Your task to perform on an android device: Check the news Image 0: 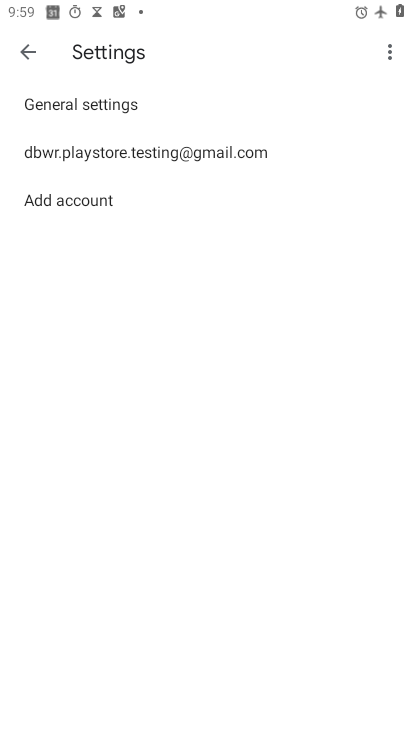
Step 0: press home button
Your task to perform on an android device: Check the news Image 1: 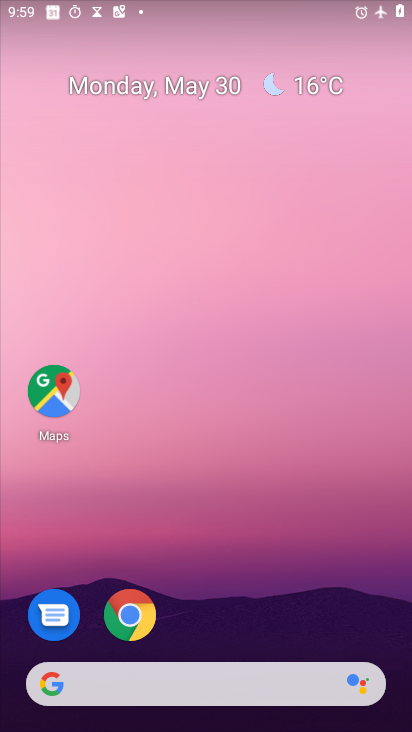
Step 1: drag from (311, 542) to (378, 0)
Your task to perform on an android device: Check the news Image 2: 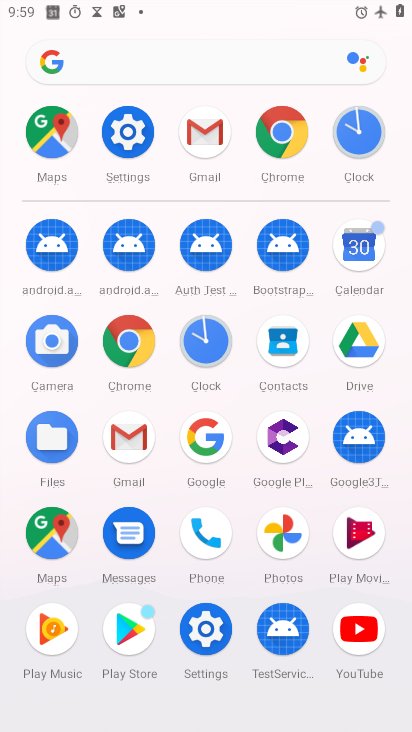
Step 2: click (270, 117)
Your task to perform on an android device: Check the news Image 3: 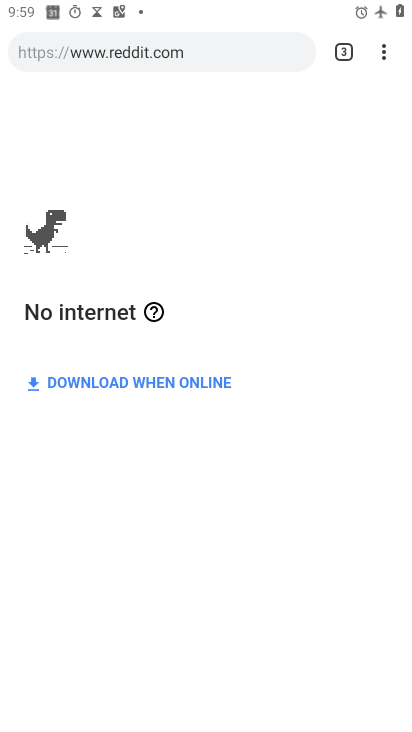
Step 3: drag from (376, 58) to (206, 104)
Your task to perform on an android device: Check the news Image 4: 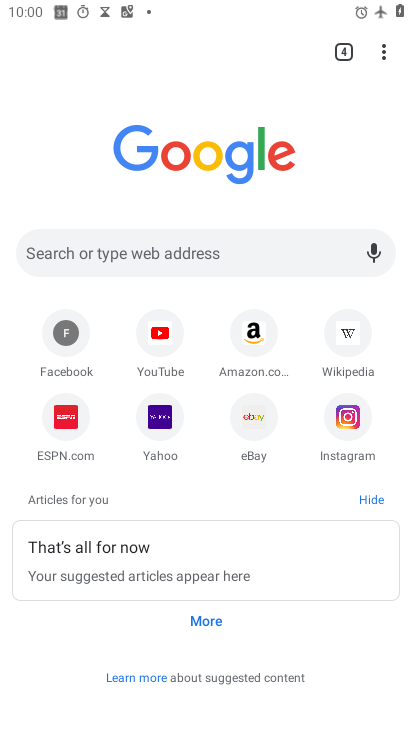
Step 4: click (190, 617)
Your task to perform on an android device: Check the news Image 5: 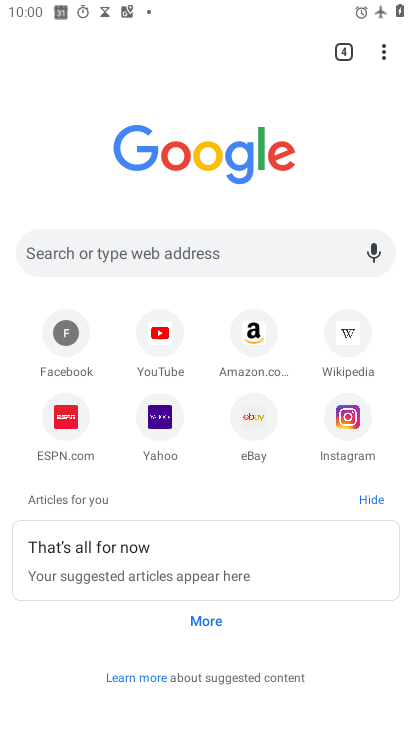
Step 5: click (215, 618)
Your task to perform on an android device: Check the news Image 6: 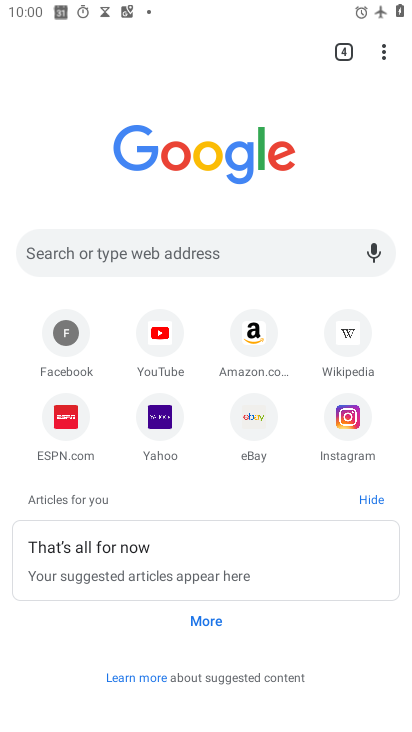
Step 6: click (207, 619)
Your task to perform on an android device: Check the news Image 7: 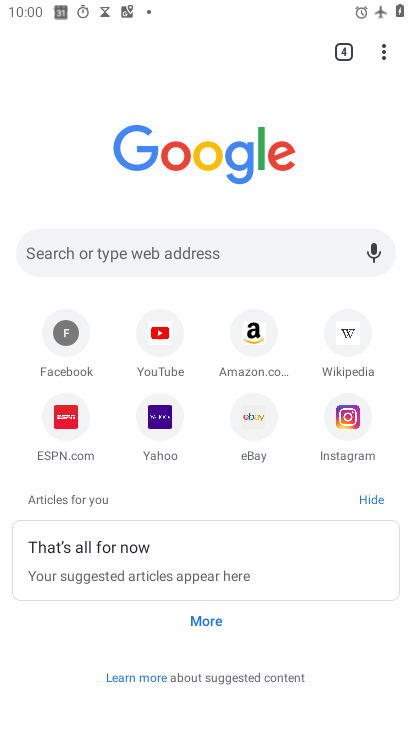
Step 7: click (215, 616)
Your task to perform on an android device: Check the news Image 8: 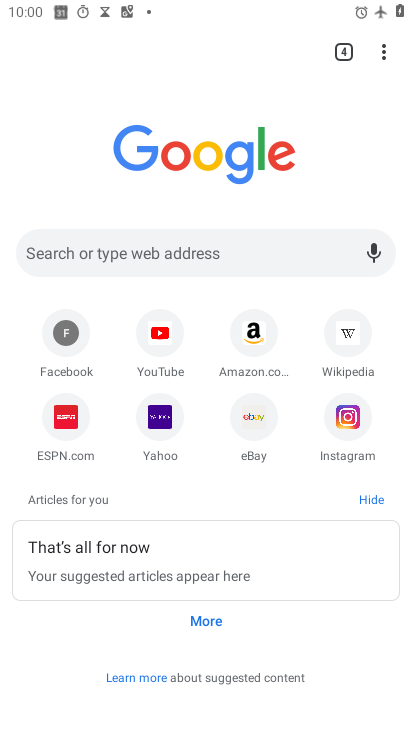
Step 8: drag from (344, 607) to (377, 160)
Your task to perform on an android device: Check the news Image 9: 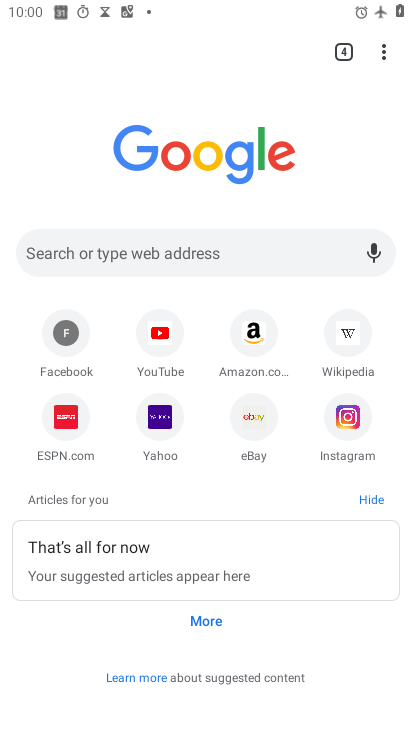
Step 9: click (214, 629)
Your task to perform on an android device: Check the news Image 10: 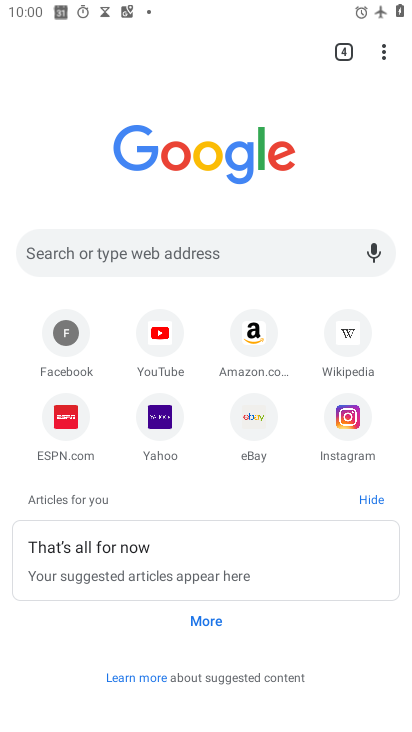
Step 10: click (194, 631)
Your task to perform on an android device: Check the news Image 11: 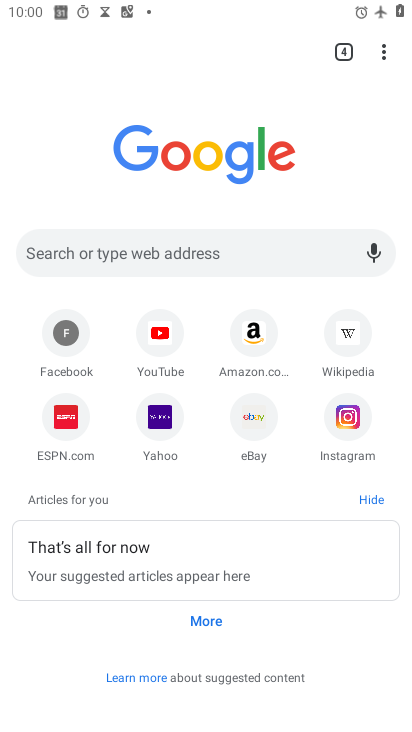
Step 11: click (194, 631)
Your task to perform on an android device: Check the news Image 12: 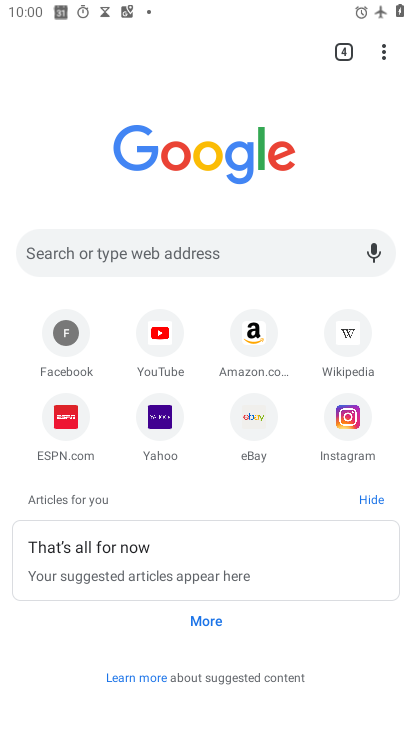
Step 12: click (194, 631)
Your task to perform on an android device: Check the news Image 13: 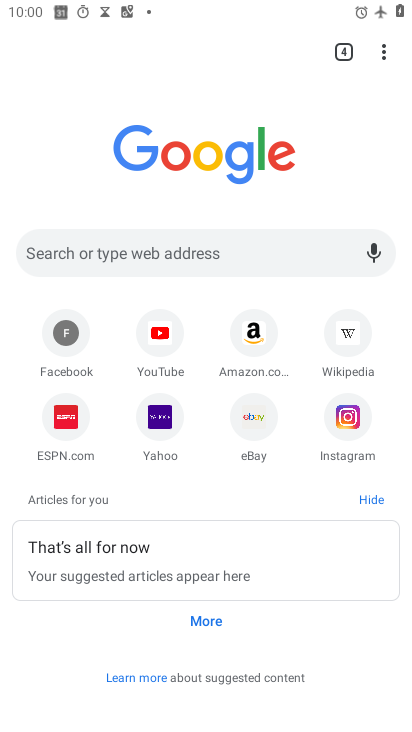
Step 13: click (208, 629)
Your task to perform on an android device: Check the news Image 14: 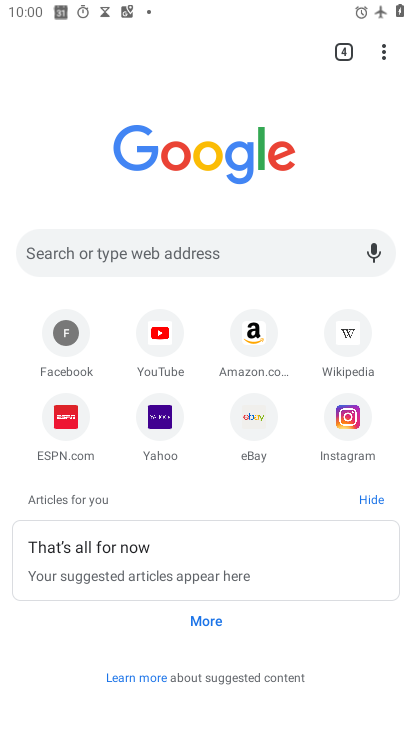
Step 14: click (207, 620)
Your task to perform on an android device: Check the news Image 15: 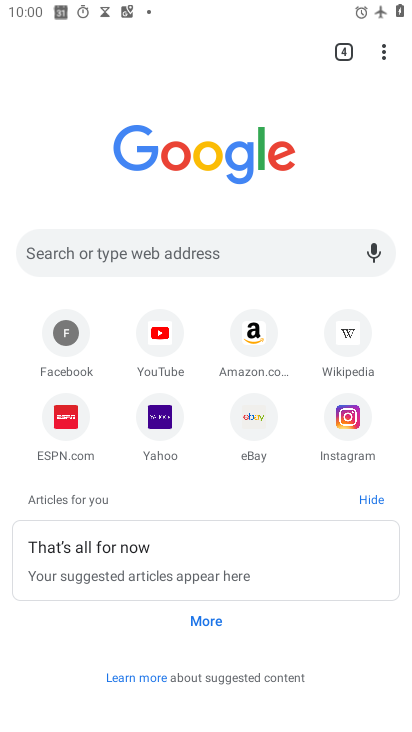
Step 15: task complete